Your task to perform on an android device: Open wifi settings Image 0: 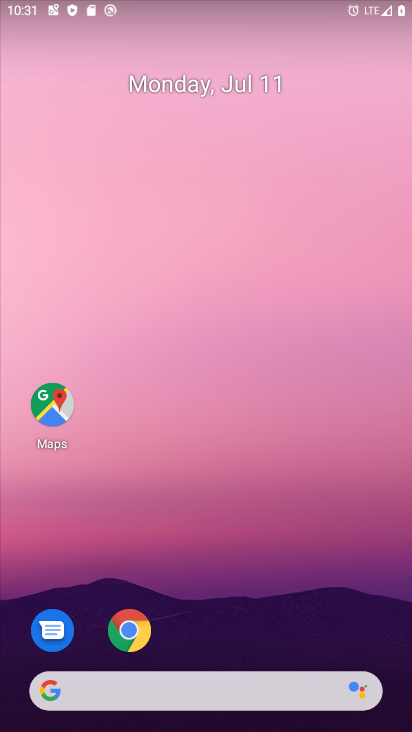
Step 0: drag from (246, 645) to (326, 77)
Your task to perform on an android device: Open wifi settings Image 1: 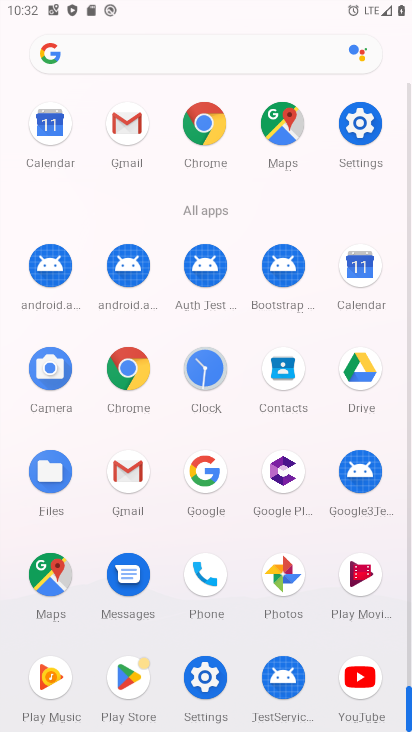
Step 1: click (355, 111)
Your task to perform on an android device: Open wifi settings Image 2: 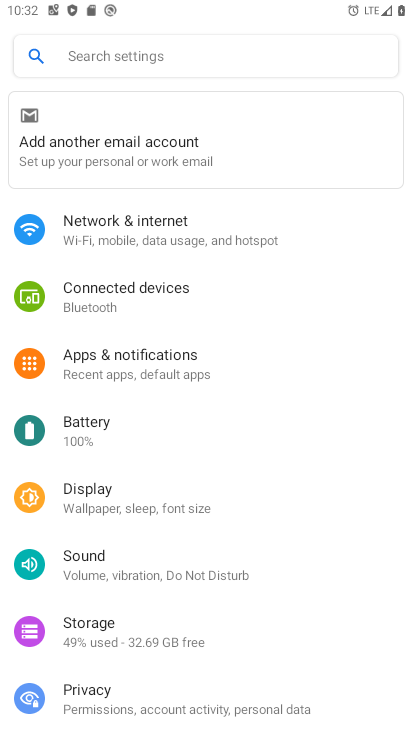
Step 2: click (81, 226)
Your task to perform on an android device: Open wifi settings Image 3: 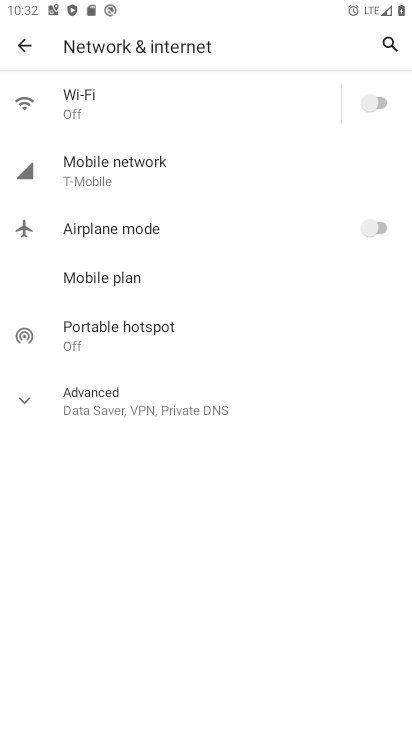
Step 3: click (108, 82)
Your task to perform on an android device: Open wifi settings Image 4: 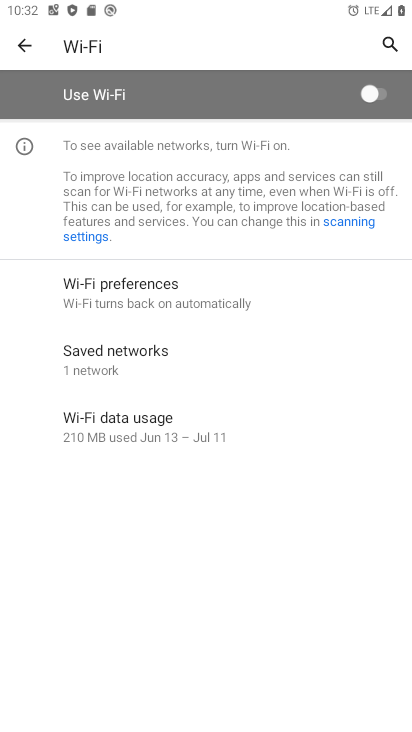
Step 4: task complete